Your task to perform on an android device: What's the weather going to be tomorrow? Image 0: 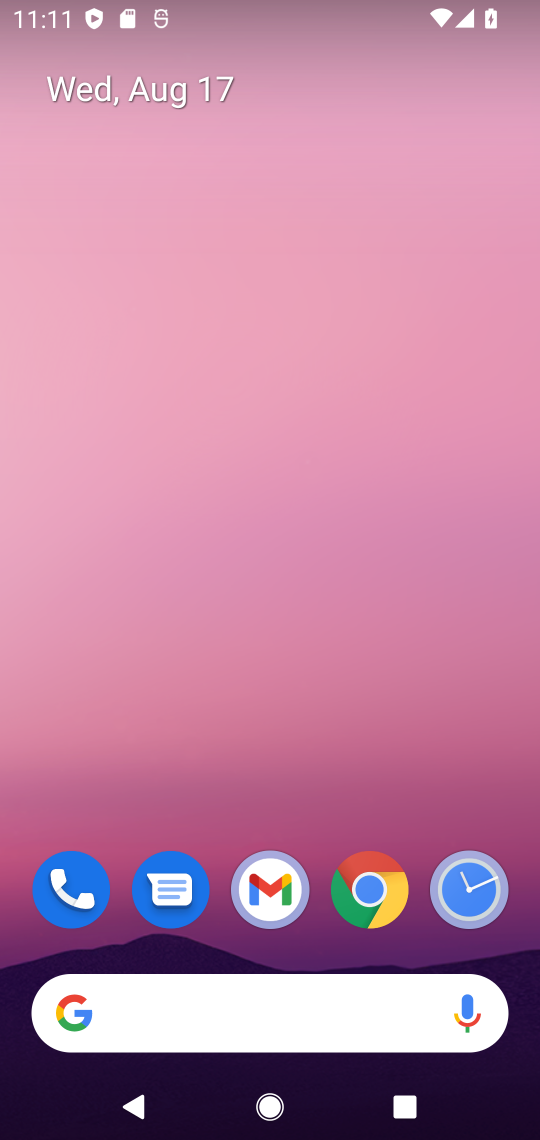
Step 0: click (261, 1029)
Your task to perform on an android device: What's the weather going to be tomorrow? Image 1: 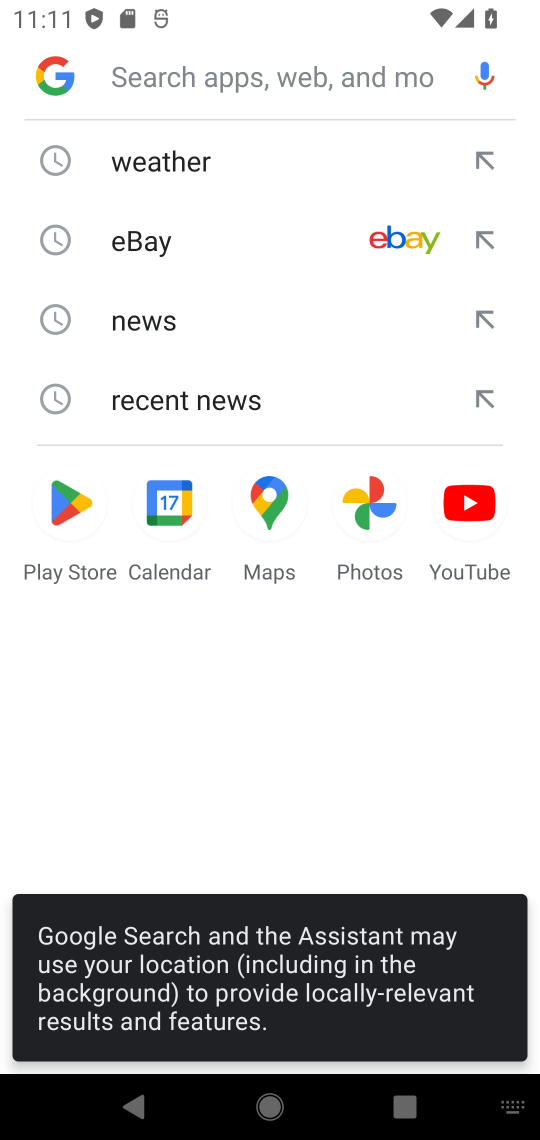
Step 1: click (207, 149)
Your task to perform on an android device: What's the weather going to be tomorrow? Image 2: 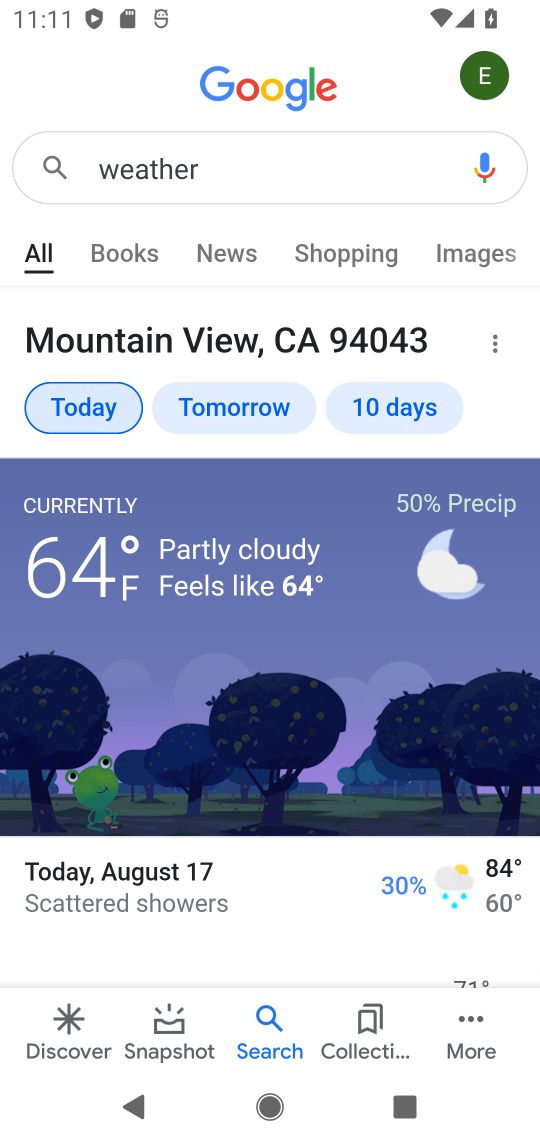
Step 2: click (259, 401)
Your task to perform on an android device: What's the weather going to be tomorrow? Image 3: 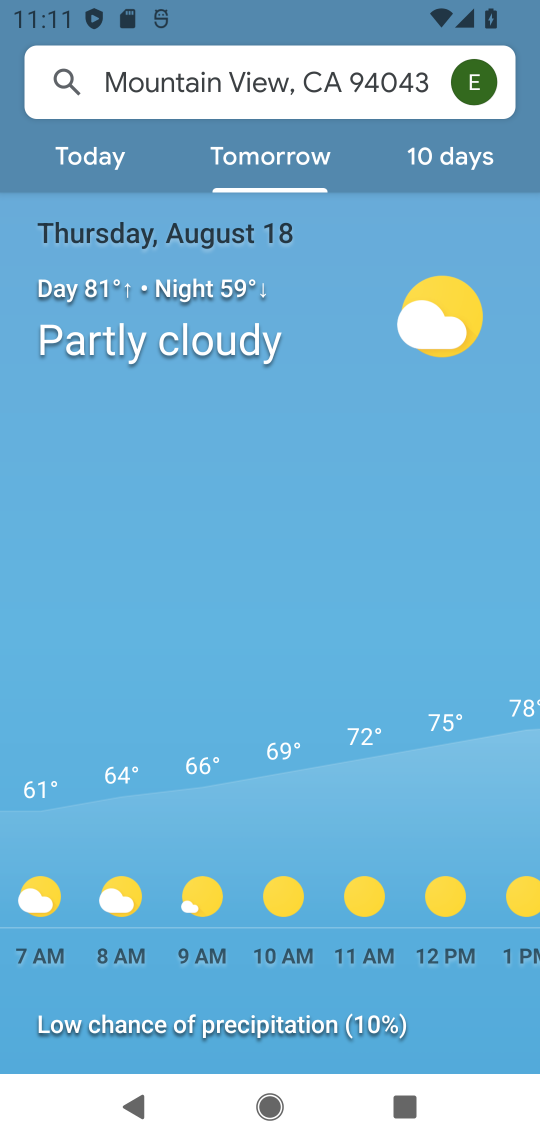
Step 3: task complete